Your task to perform on an android device: turn vacation reply on in the gmail app Image 0: 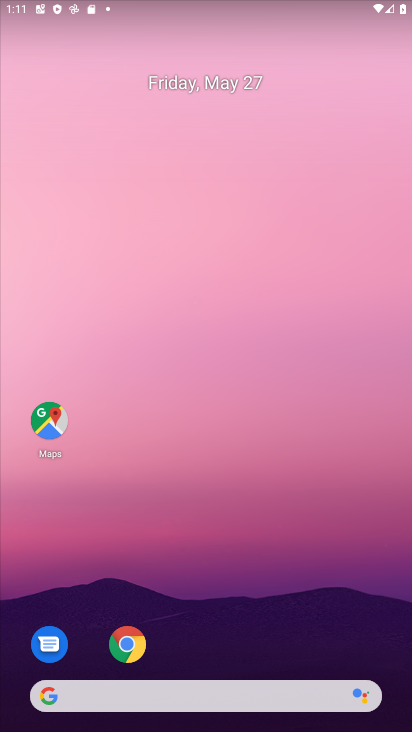
Step 0: drag from (315, 632) to (254, 54)
Your task to perform on an android device: turn vacation reply on in the gmail app Image 1: 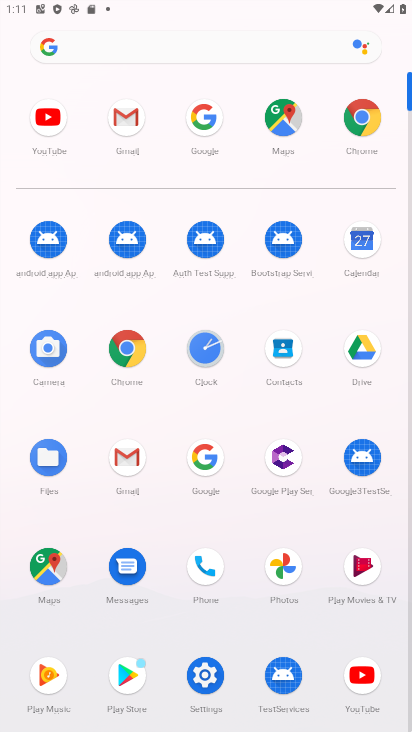
Step 1: click (116, 464)
Your task to perform on an android device: turn vacation reply on in the gmail app Image 2: 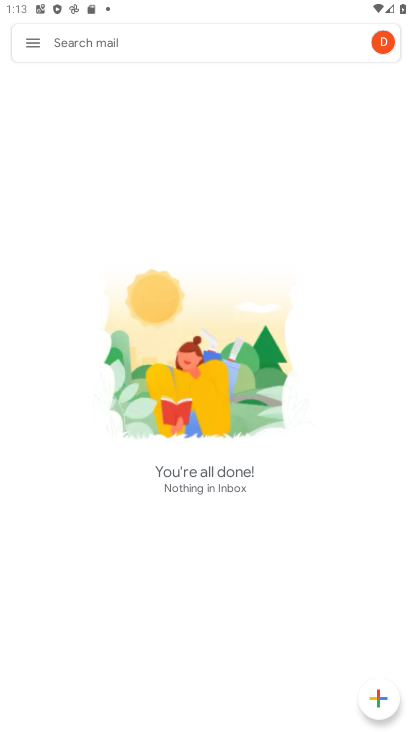
Step 2: click (40, 52)
Your task to perform on an android device: turn vacation reply on in the gmail app Image 3: 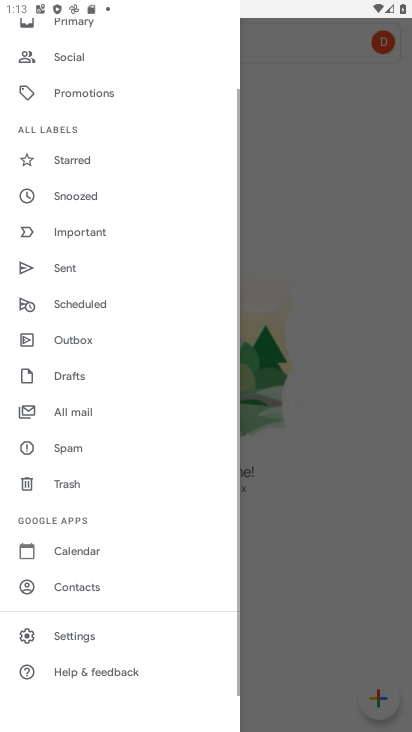
Step 3: click (160, 632)
Your task to perform on an android device: turn vacation reply on in the gmail app Image 4: 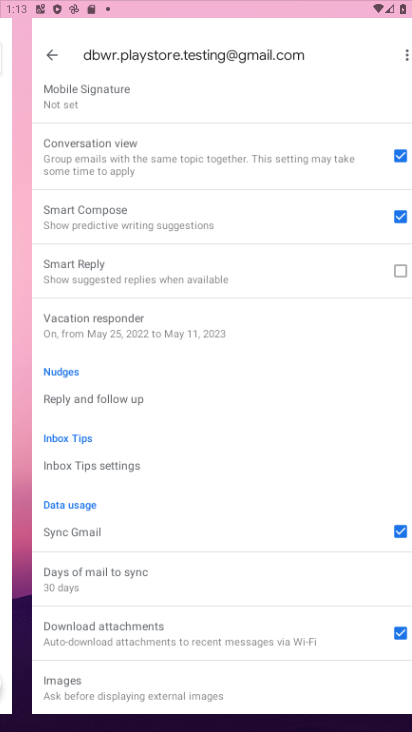
Step 4: drag from (160, 632) to (184, 200)
Your task to perform on an android device: turn vacation reply on in the gmail app Image 5: 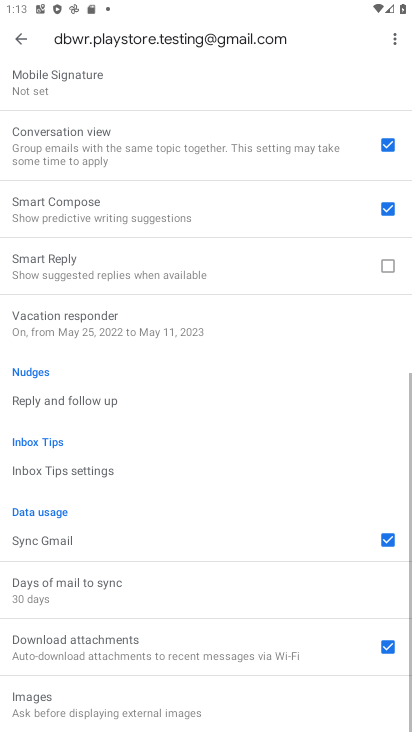
Step 5: click (119, 308)
Your task to perform on an android device: turn vacation reply on in the gmail app Image 6: 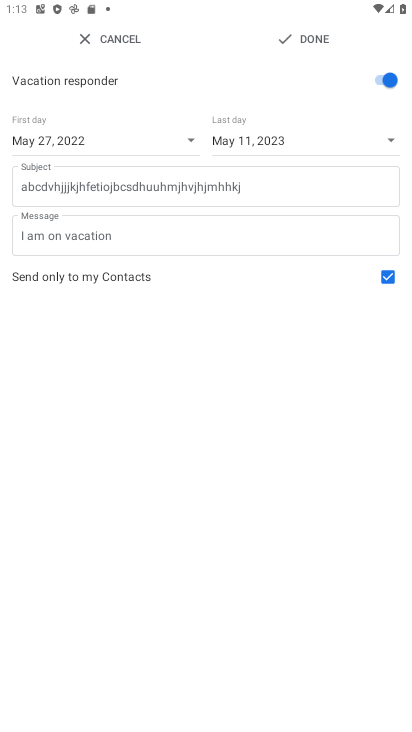
Step 6: task complete